Your task to perform on an android device: Go to privacy settings Image 0: 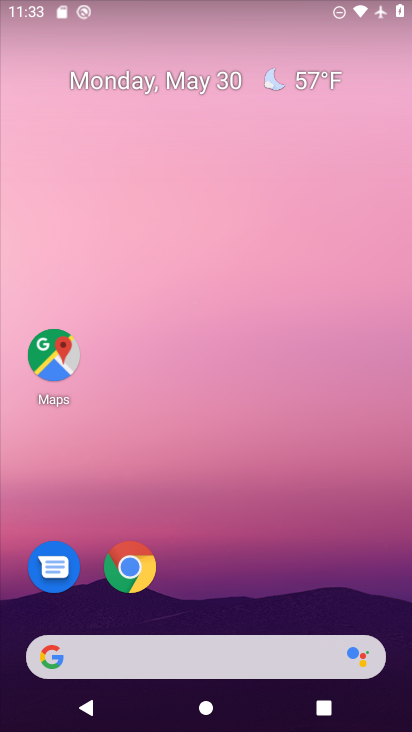
Step 0: drag from (195, 604) to (217, 133)
Your task to perform on an android device: Go to privacy settings Image 1: 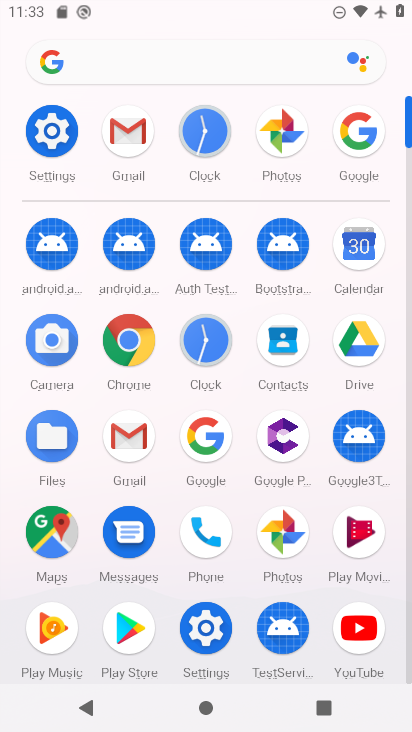
Step 1: click (49, 118)
Your task to perform on an android device: Go to privacy settings Image 2: 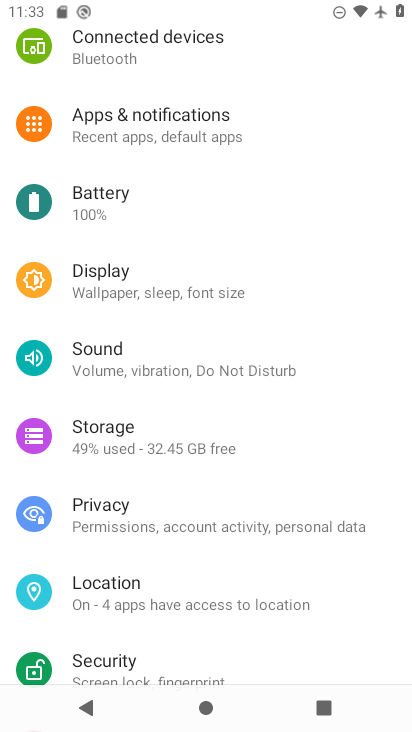
Step 2: click (159, 494)
Your task to perform on an android device: Go to privacy settings Image 3: 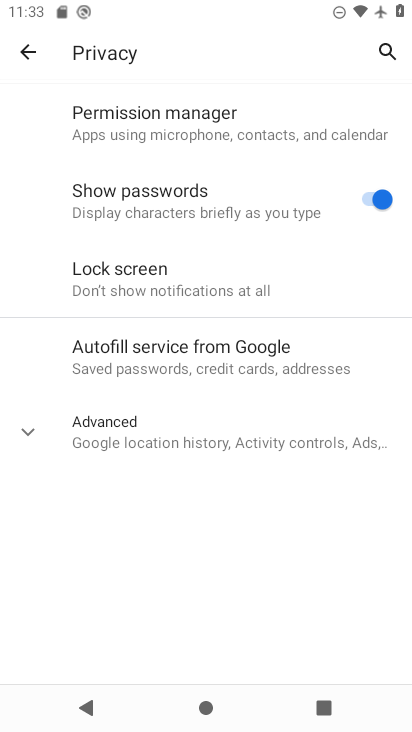
Step 3: task complete